Your task to perform on an android device: Go to Google maps Image 0: 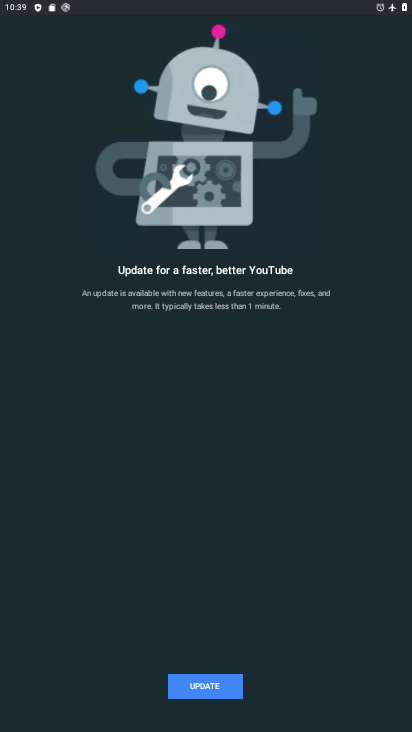
Step 0: press back button
Your task to perform on an android device: Go to Google maps Image 1: 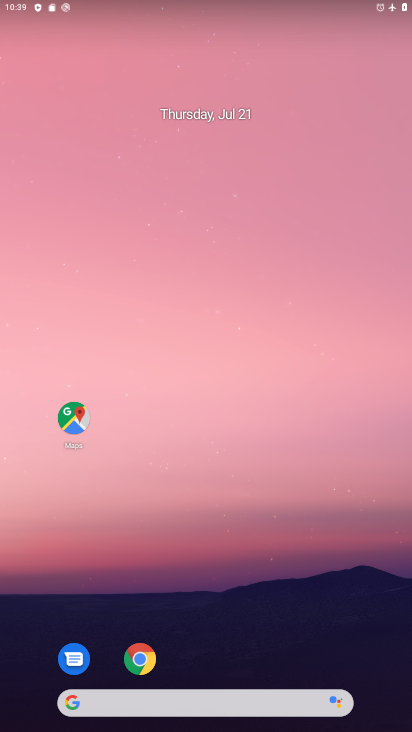
Step 1: click (65, 415)
Your task to perform on an android device: Go to Google maps Image 2: 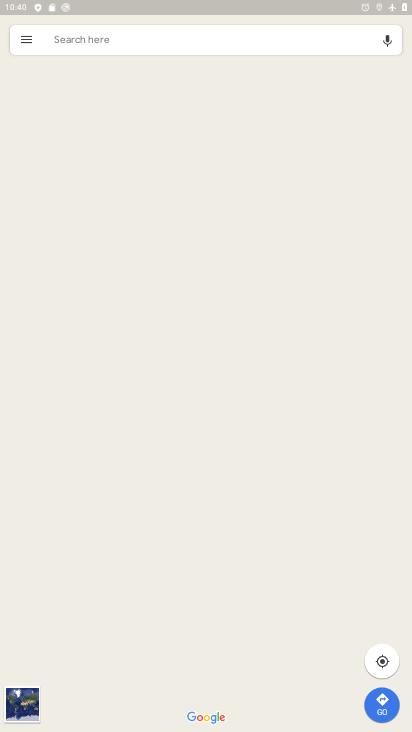
Step 2: task complete